Your task to perform on an android device: toggle wifi Image 0: 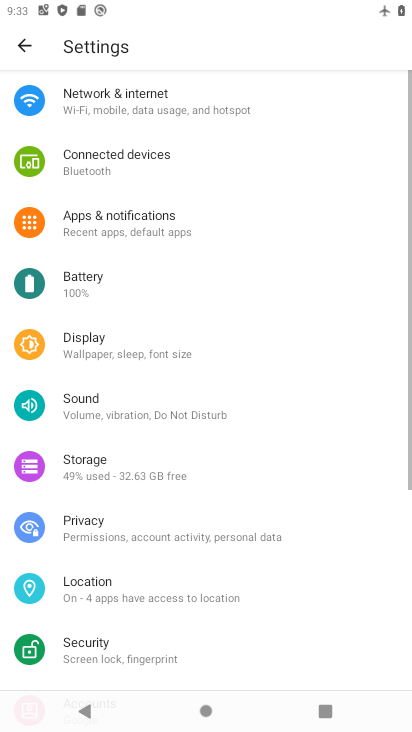
Step 0: click (98, 116)
Your task to perform on an android device: toggle wifi Image 1: 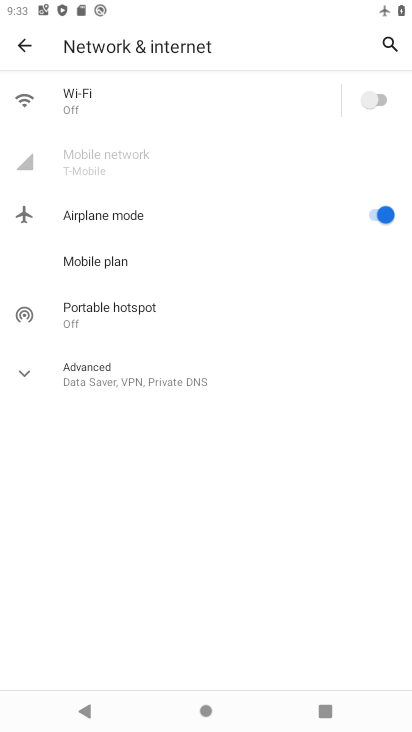
Step 1: click (372, 87)
Your task to perform on an android device: toggle wifi Image 2: 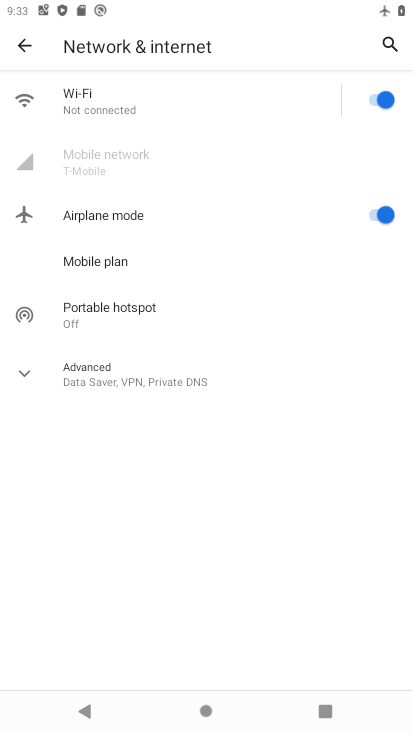
Step 2: task complete